Your task to perform on an android device: Clear the cart on bestbuy.com. Search for lenovo thinkpad on bestbuy.com, select the first entry, and add it to the cart. Image 0: 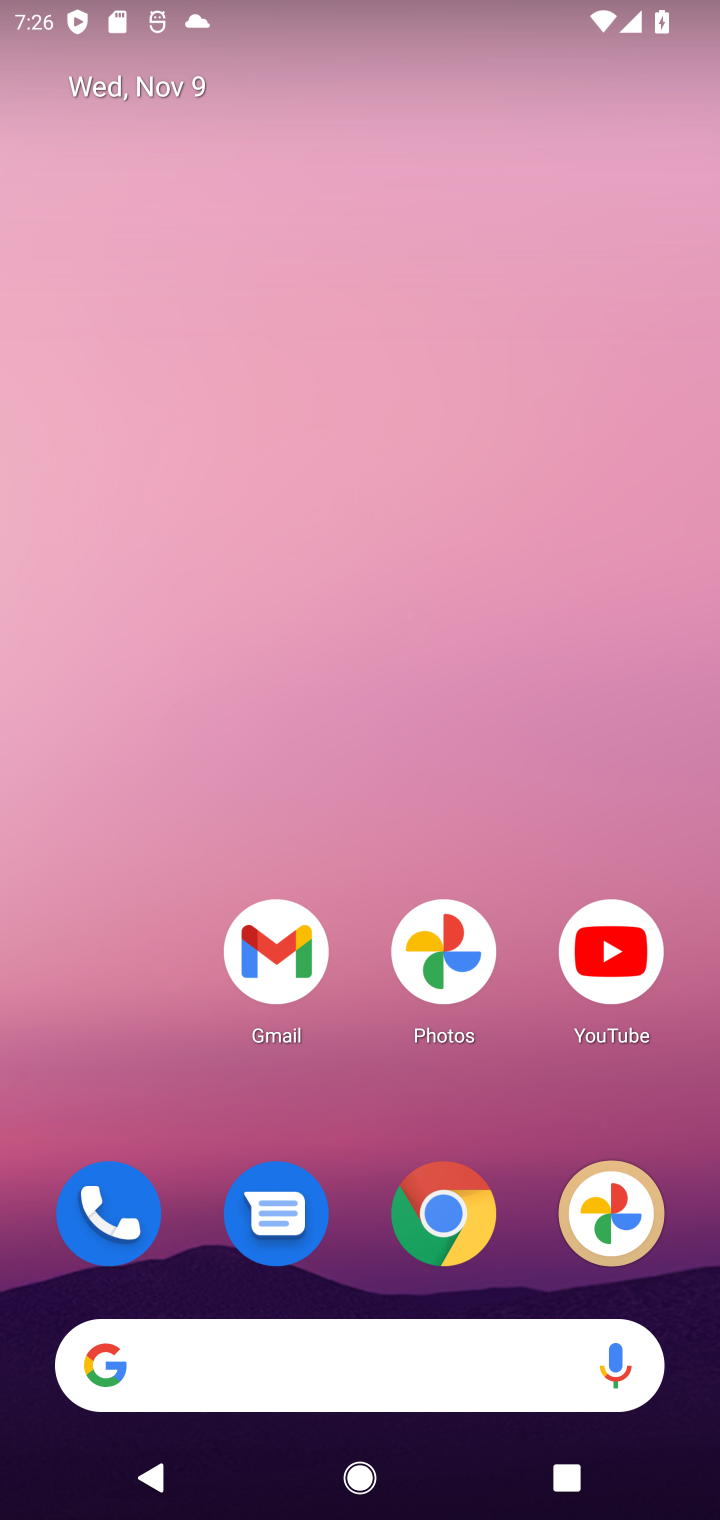
Step 0: click (473, 1206)
Your task to perform on an android device: Clear the cart on bestbuy.com. Search for lenovo thinkpad on bestbuy.com, select the first entry, and add it to the cart. Image 1: 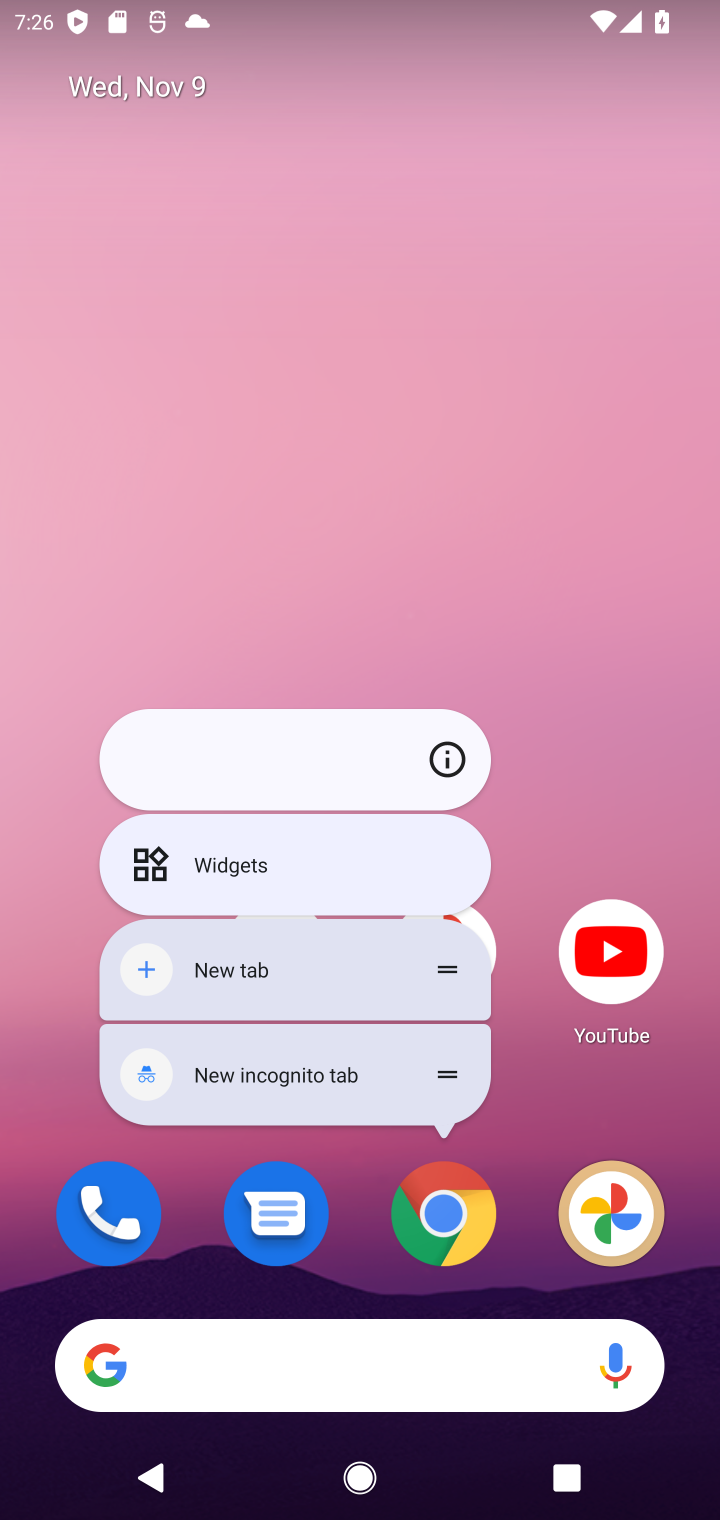
Step 1: click (443, 1198)
Your task to perform on an android device: Clear the cart on bestbuy.com. Search for lenovo thinkpad on bestbuy.com, select the first entry, and add it to the cart. Image 2: 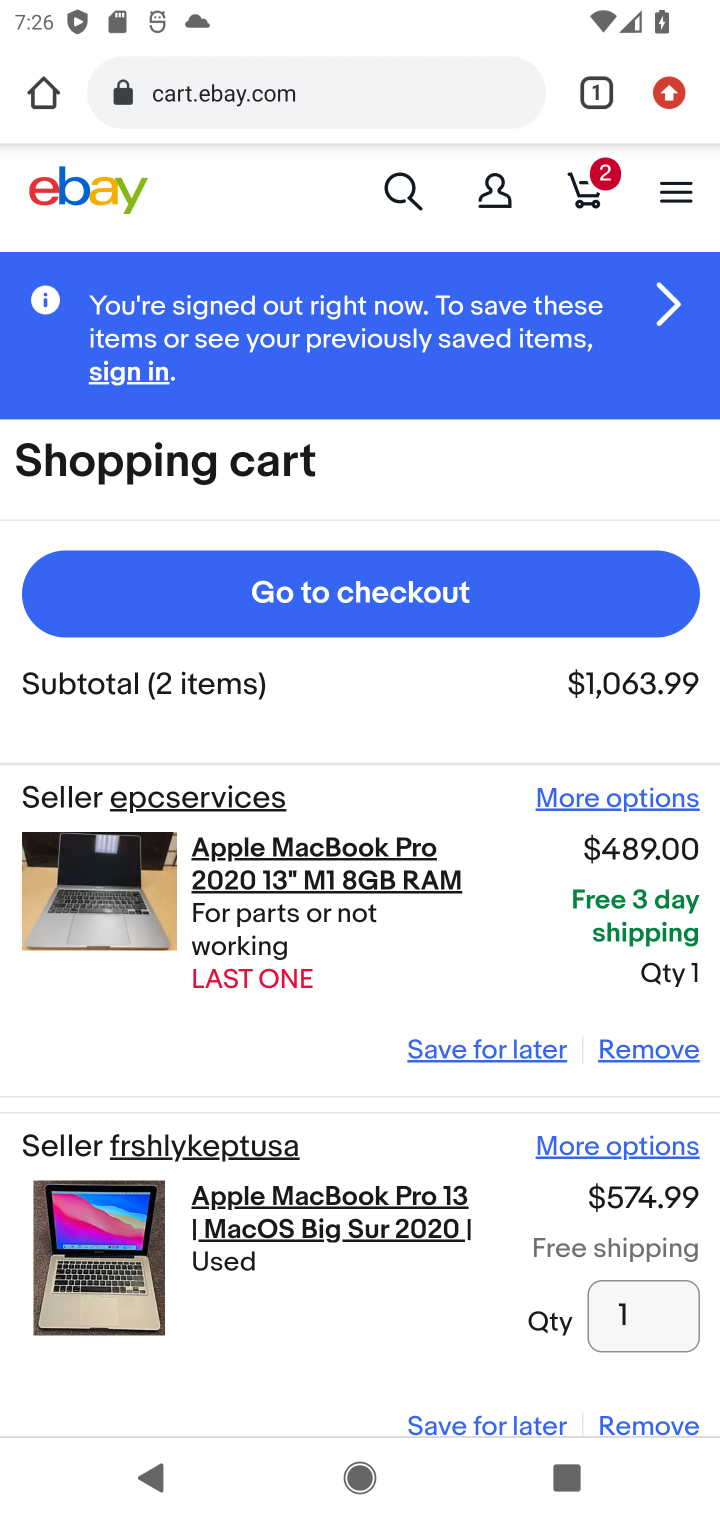
Step 2: click (215, 92)
Your task to perform on an android device: Clear the cart on bestbuy.com. Search for lenovo thinkpad on bestbuy.com, select the first entry, and add it to the cart. Image 3: 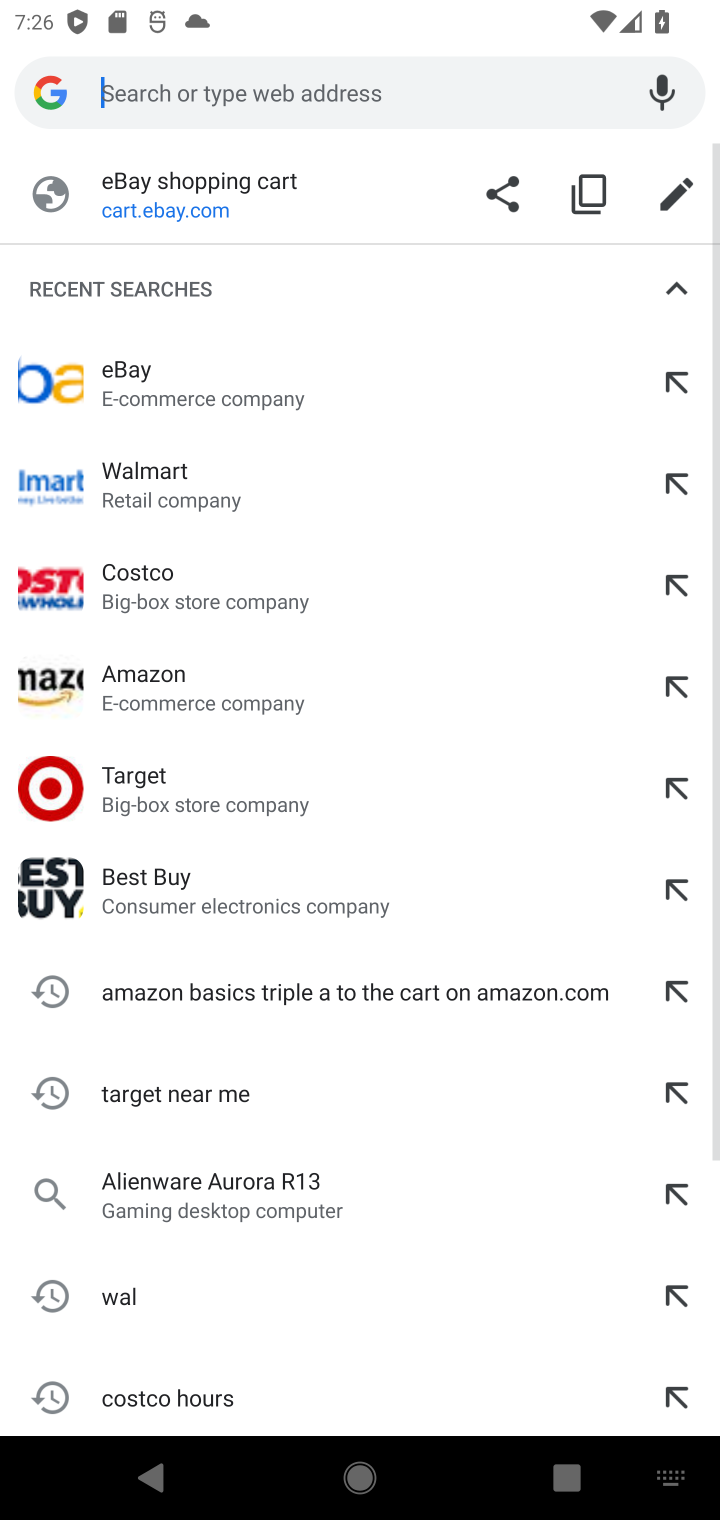
Step 3: click (112, 868)
Your task to perform on an android device: Clear the cart on bestbuy.com. Search for lenovo thinkpad on bestbuy.com, select the first entry, and add it to the cart. Image 4: 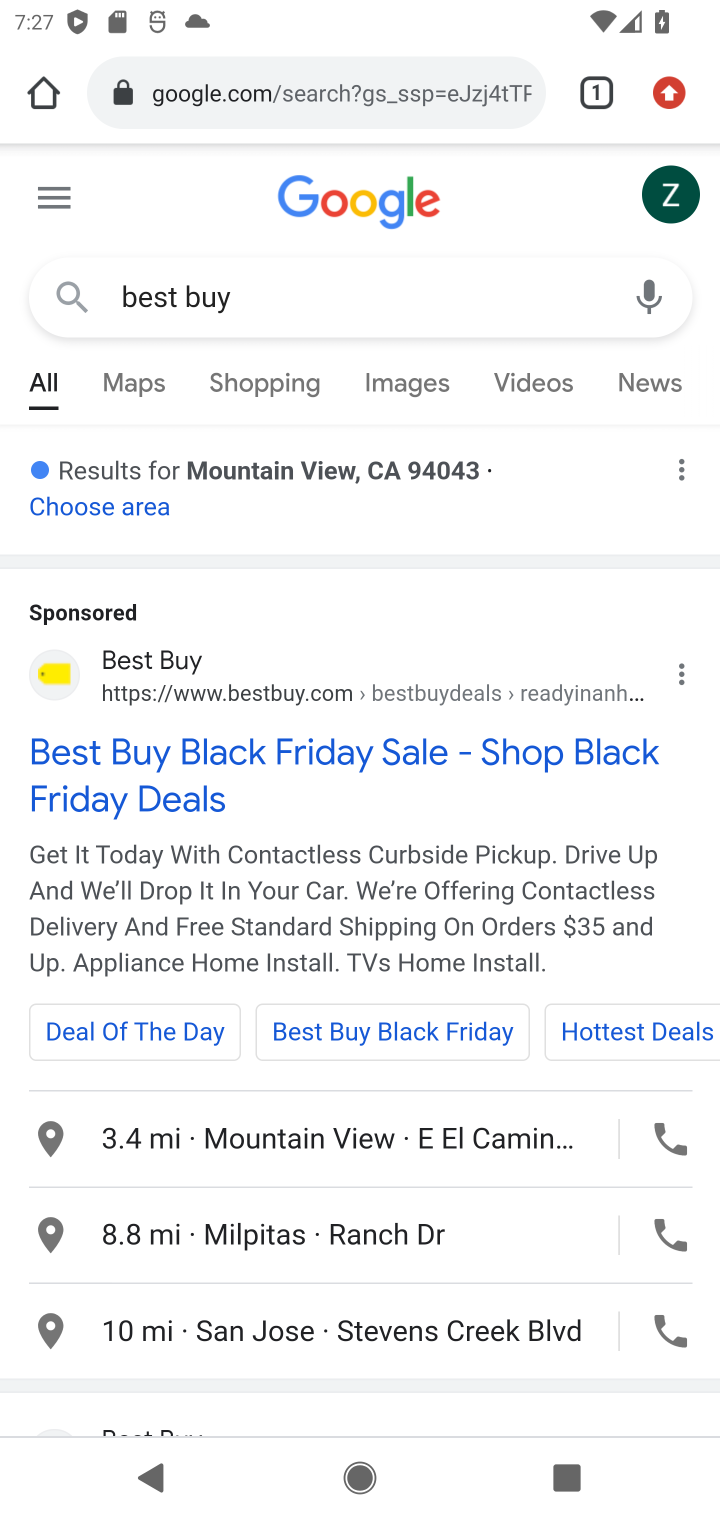
Step 4: drag from (149, 1320) to (297, 370)
Your task to perform on an android device: Clear the cart on bestbuy.com. Search for lenovo thinkpad on bestbuy.com, select the first entry, and add it to the cart. Image 5: 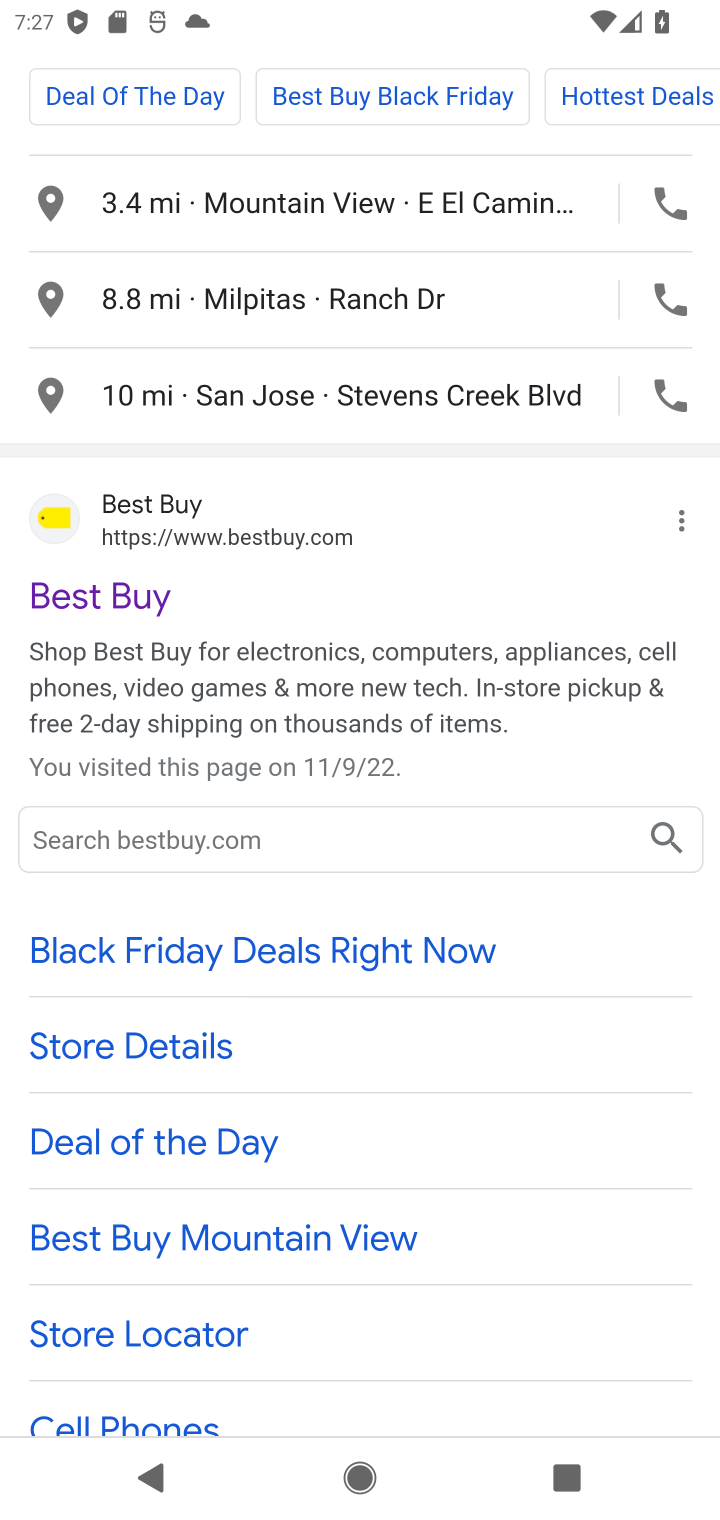
Step 5: click (118, 586)
Your task to perform on an android device: Clear the cart on bestbuy.com. Search for lenovo thinkpad on bestbuy.com, select the first entry, and add it to the cart. Image 6: 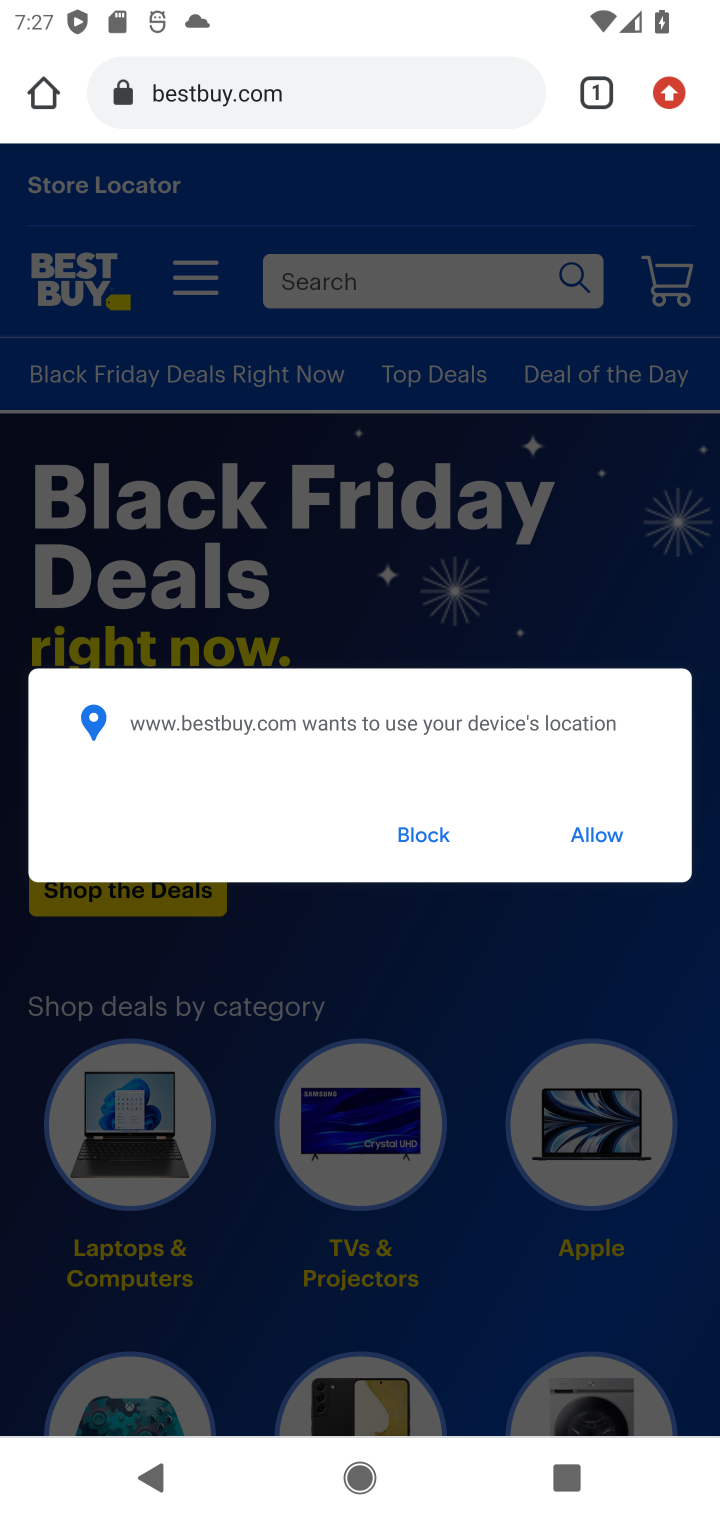
Step 6: click (610, 830)
Your task to perform on an android device: Clear the cart on bestbuy.com. Search for lenovo thinkpad on bestbuy.com, select the first entry, and add it to the cart. Image 7: 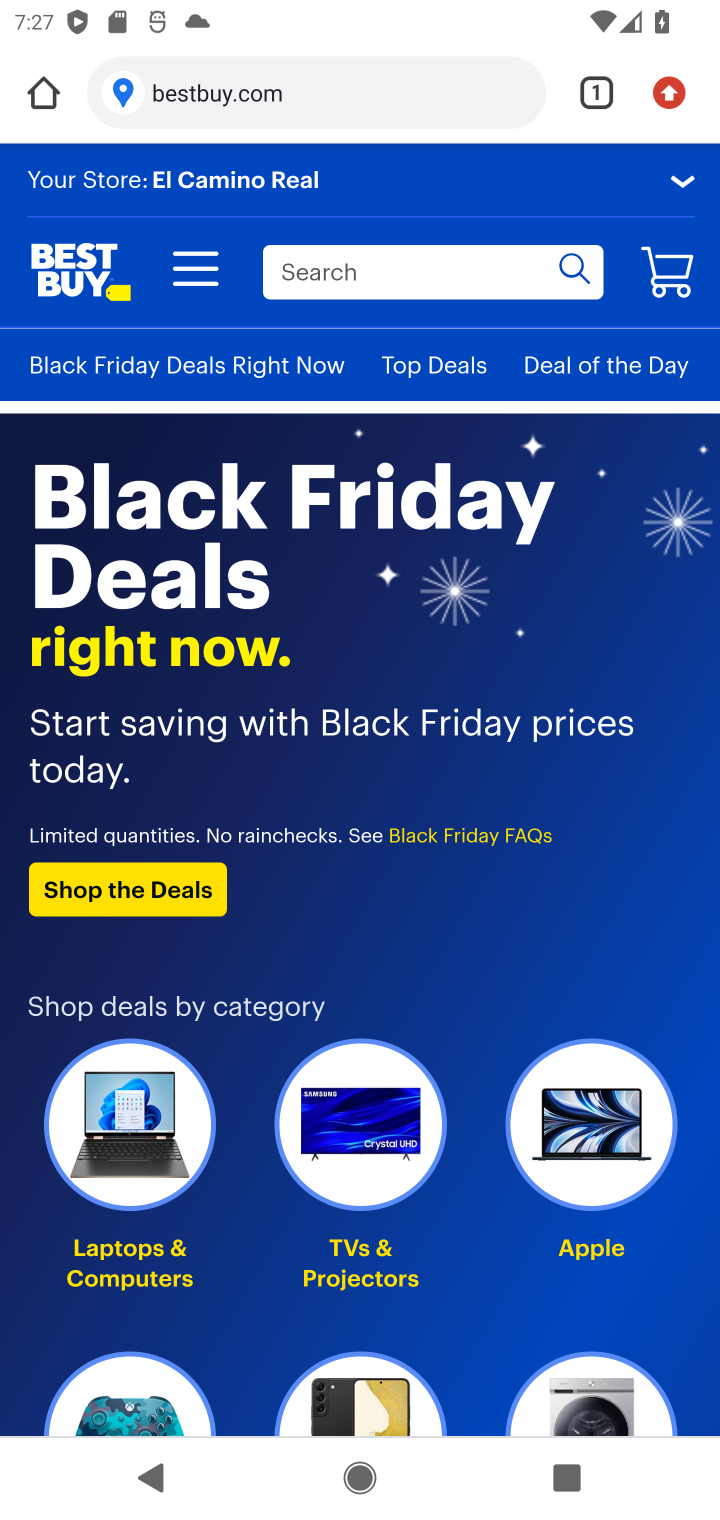
Step 7: click (367, 273)
Your task to perform on an android device: Clear the cart on bestbuy.com. Search for lenovo thinkpad on bestbuy.com, select the first entry, and add it to the cart. Image 8: 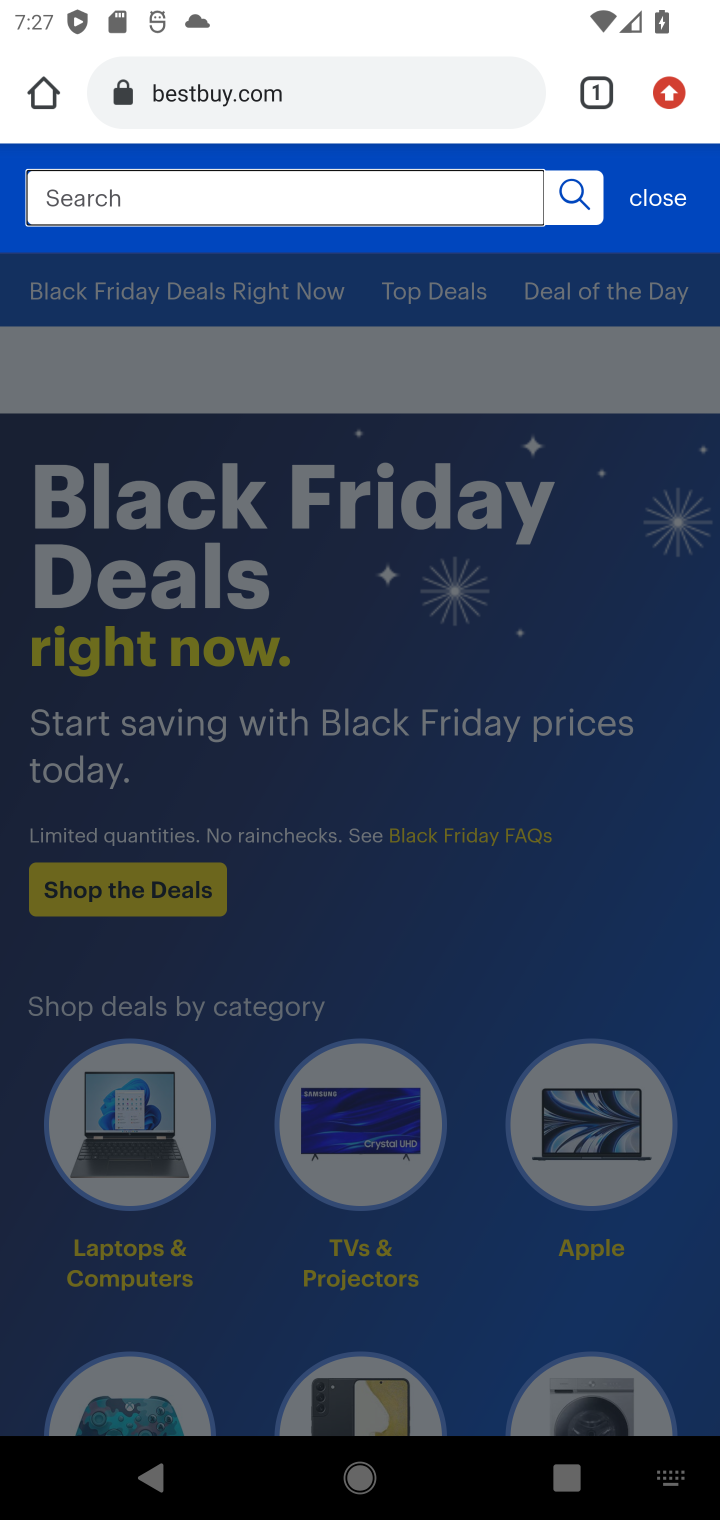
Step 8: type "lenovo thinkpad"
Your task to perform on an android device: Clear the cart on bestbuy.com. Search for lenovo thinkpad on bestbuy.com, select the first entry, and add it to the cart. Image 9: 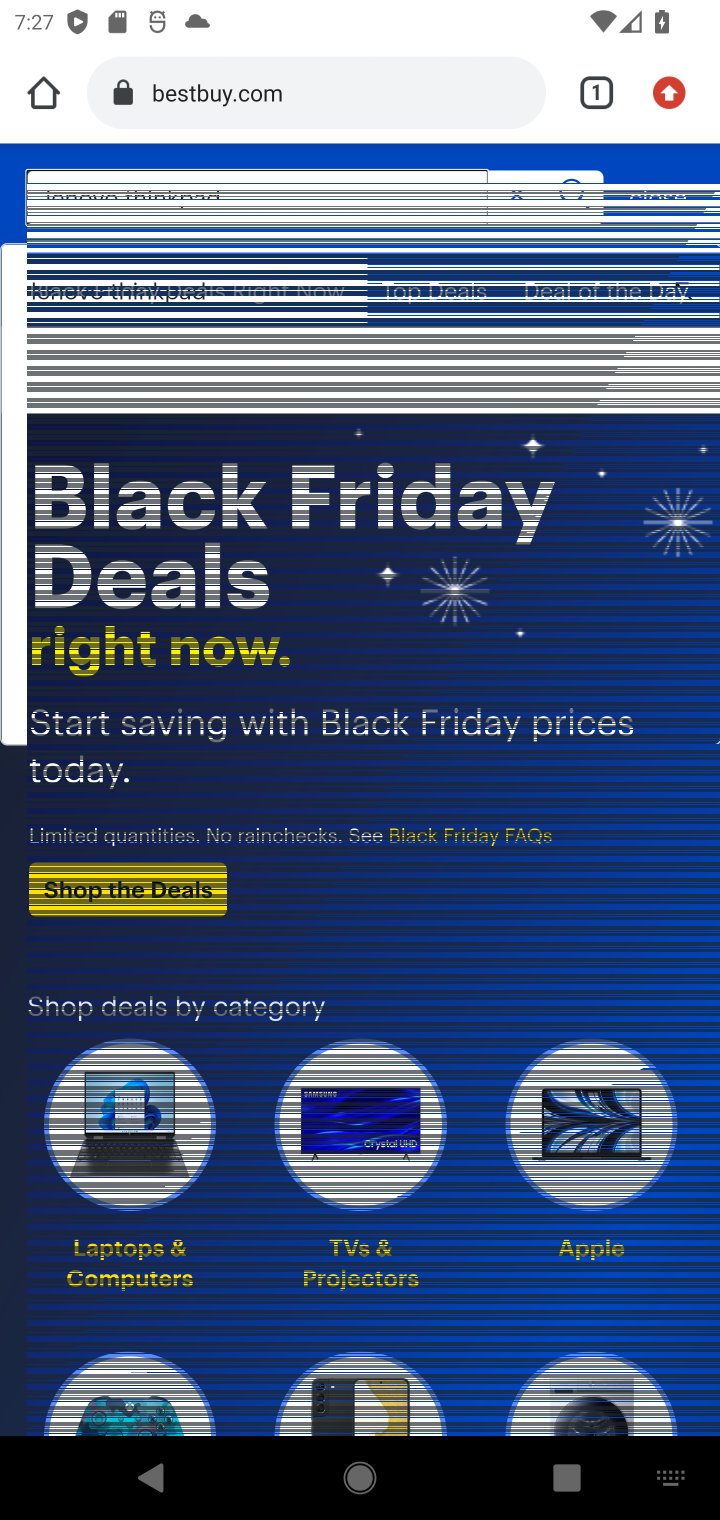
Step 9: click (161, 282)
Your task to perform on an android device: Clear the cart on bestbuy.com. Search for lenovo thinkpad on bestbuy.com, select the first entry, and add it to the cart. Image 10: 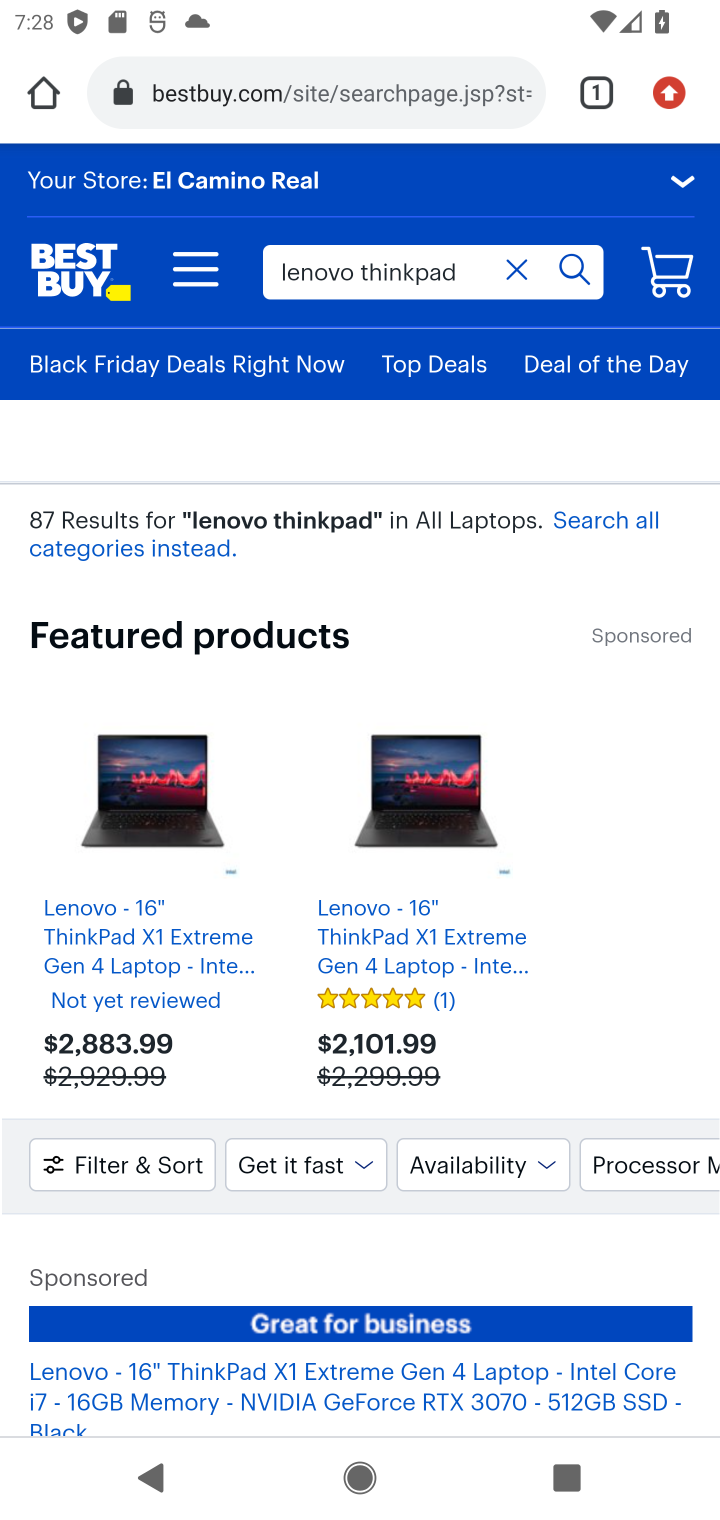
Step 10: click (69, 933)
Your task to perform on an android device: Clear the cart on bestbuy.com. Search for lenovo thinkpad on bestbuy.com, select the first entry, and add it to the cart. Image 11: 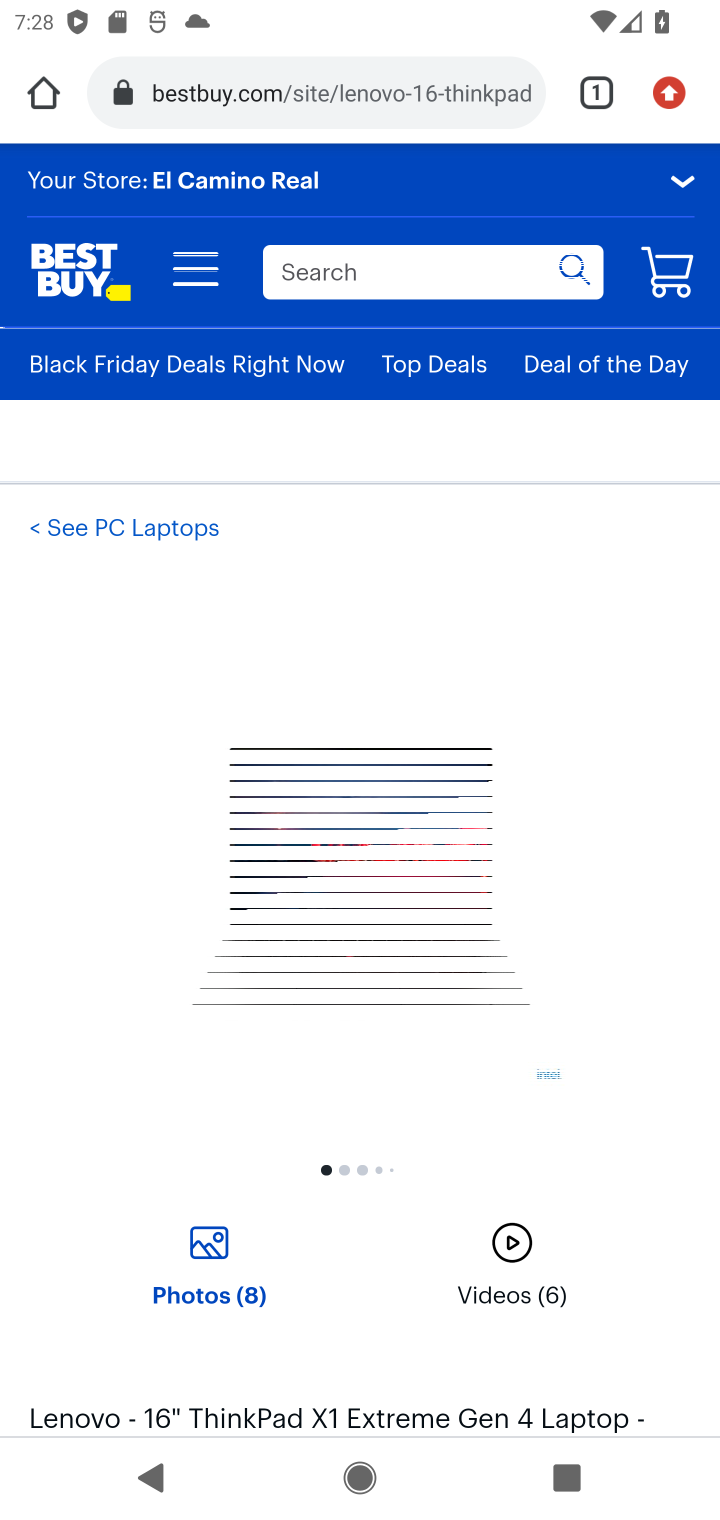
Step 11: drag from (298, 1114) to (319, 504)
Your task to perform on an android device: Clear the cart on bestbuy.com. Search for lenovo thinkpad on bestbuy.com, select the first entry, and add it to the cart. Image 12: 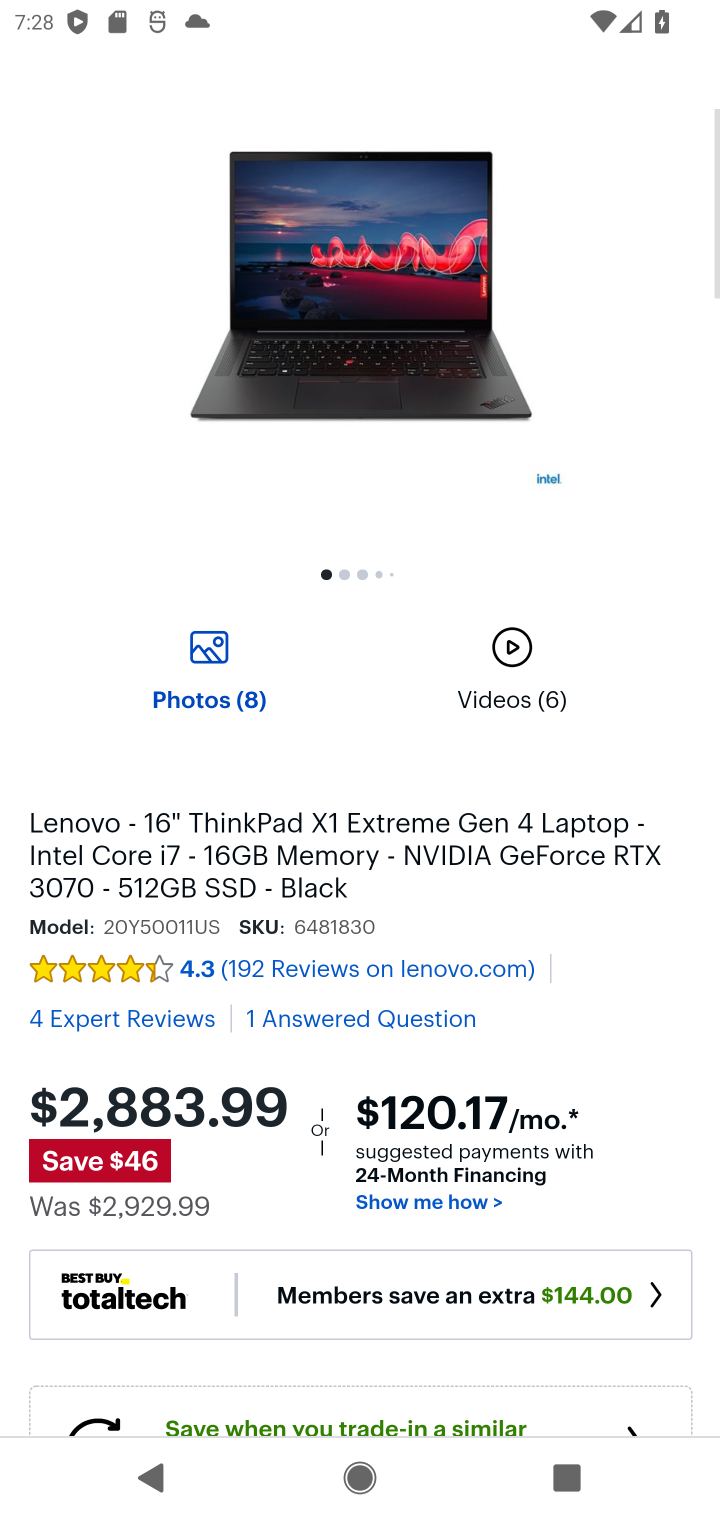
Step 12: drag from (281, 1216) to (315, 527)
Your task to perform on an android device: Clear the cart on bestbuy.com. Search for lenovo thinkpad on bestbuy.com, select the first entry, and add it to the cart. Image 13: 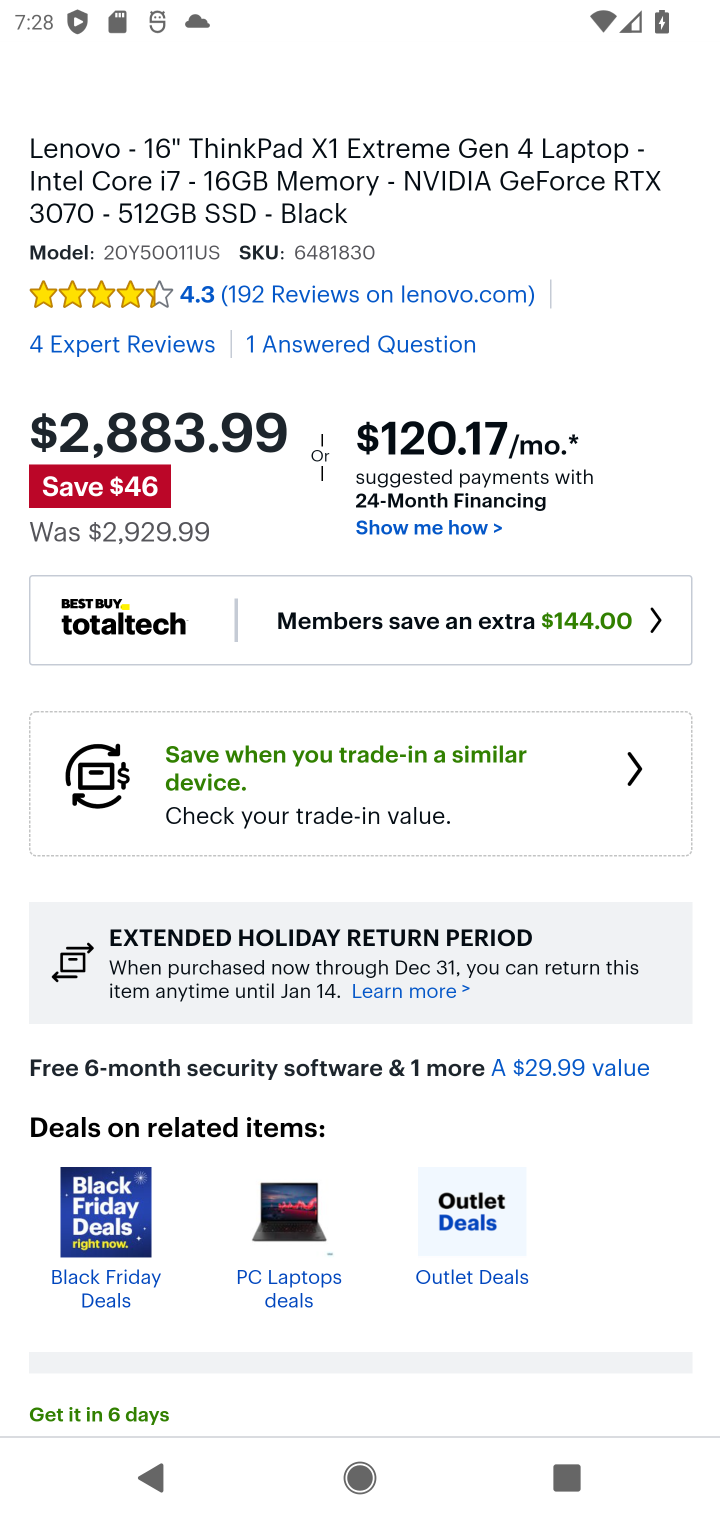
Step 13: drag from (346, 990) to (308, 432)
Your task to perform on an android device: Clear the cart on bestbuy.com. Search for lenovo thinkpad on bestbuy.com, select the first entry, and add it to the cart. Image 14: 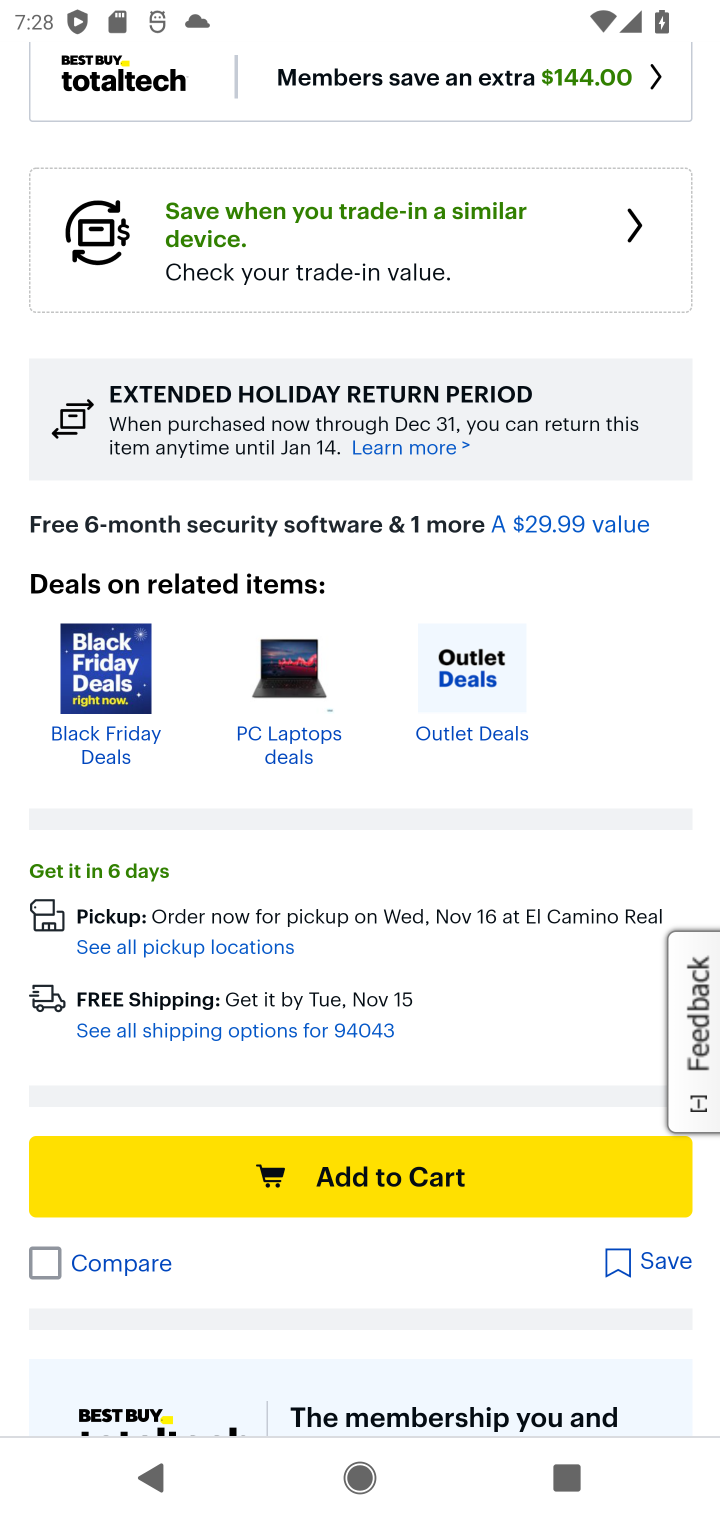
Step 14: click (369, 1168)
Your task to perform on an android device: Clear the cart on bestbuy.com. Search for lenovo thinkpad on bestbuy.com, select the first entry, and add it to the cart. Image 15: 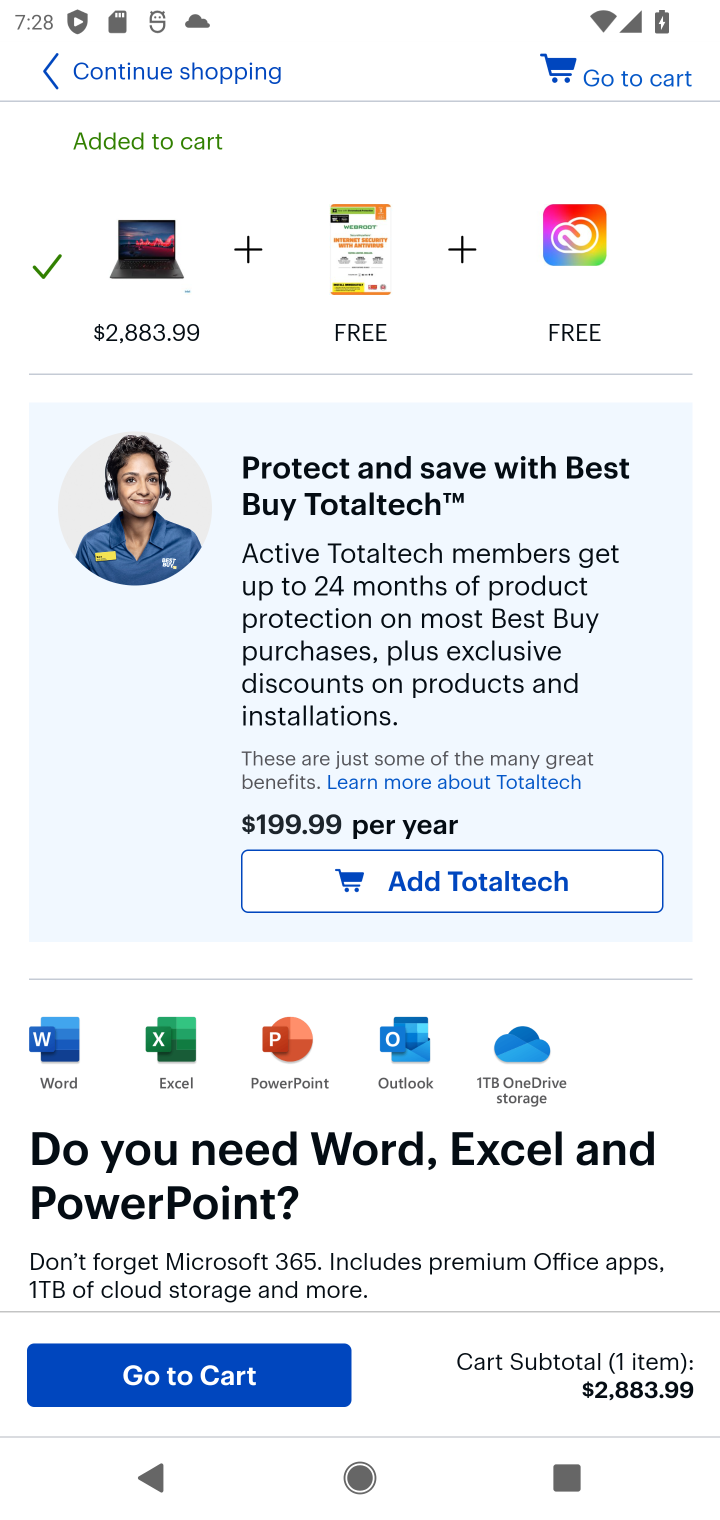
Step 15: click (160, 1390)
Your task to perform on an android device: Clear the cart on bestbuy.com. Search for lenovo thinkpad on bestbuy.com, select the first entry, and add it to the cart. Image 16: 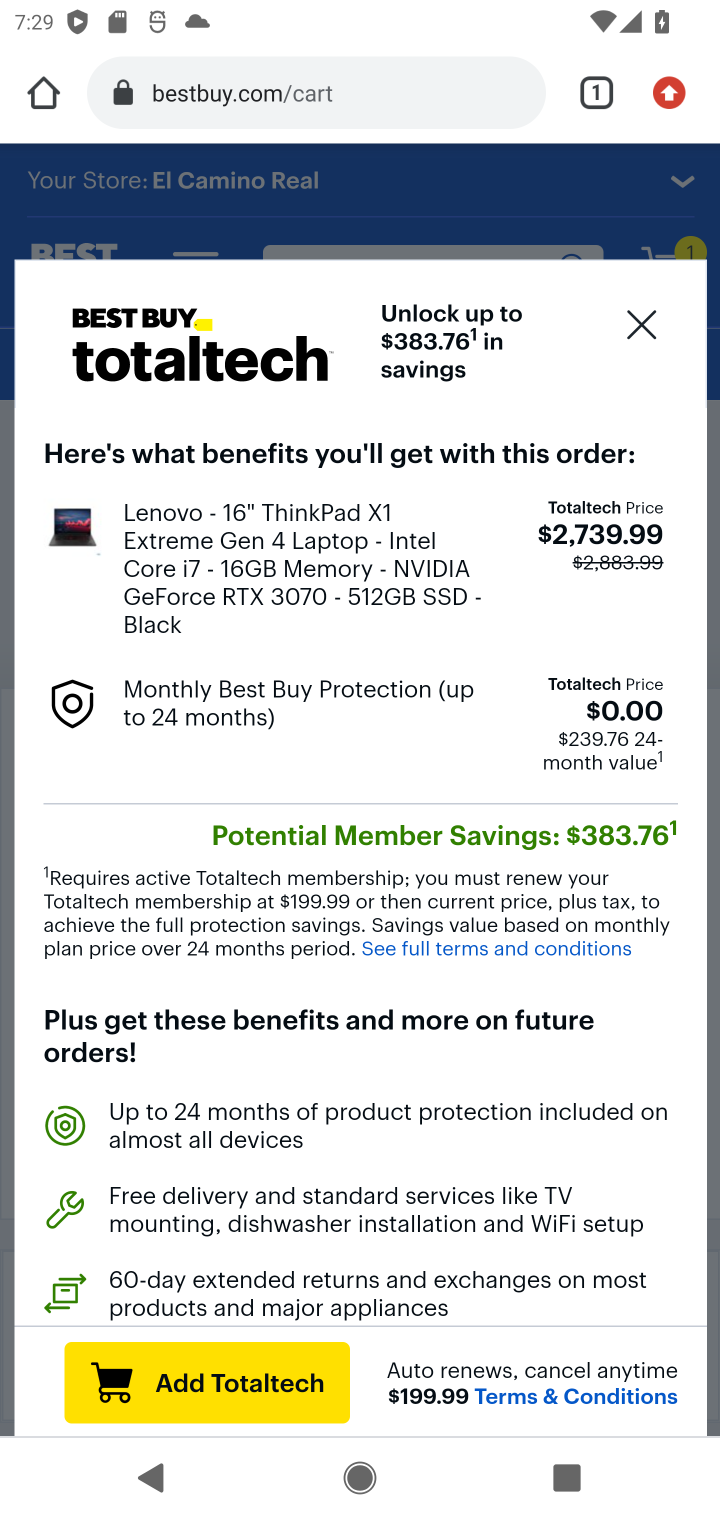
Step 16: click (636, 317)
Your task to perform on an android device: Clear the cart on bestbuy.com. Search for lenovo thinkpad on bestbuy.com, select the first entry, and add it to the cart. Image 17: 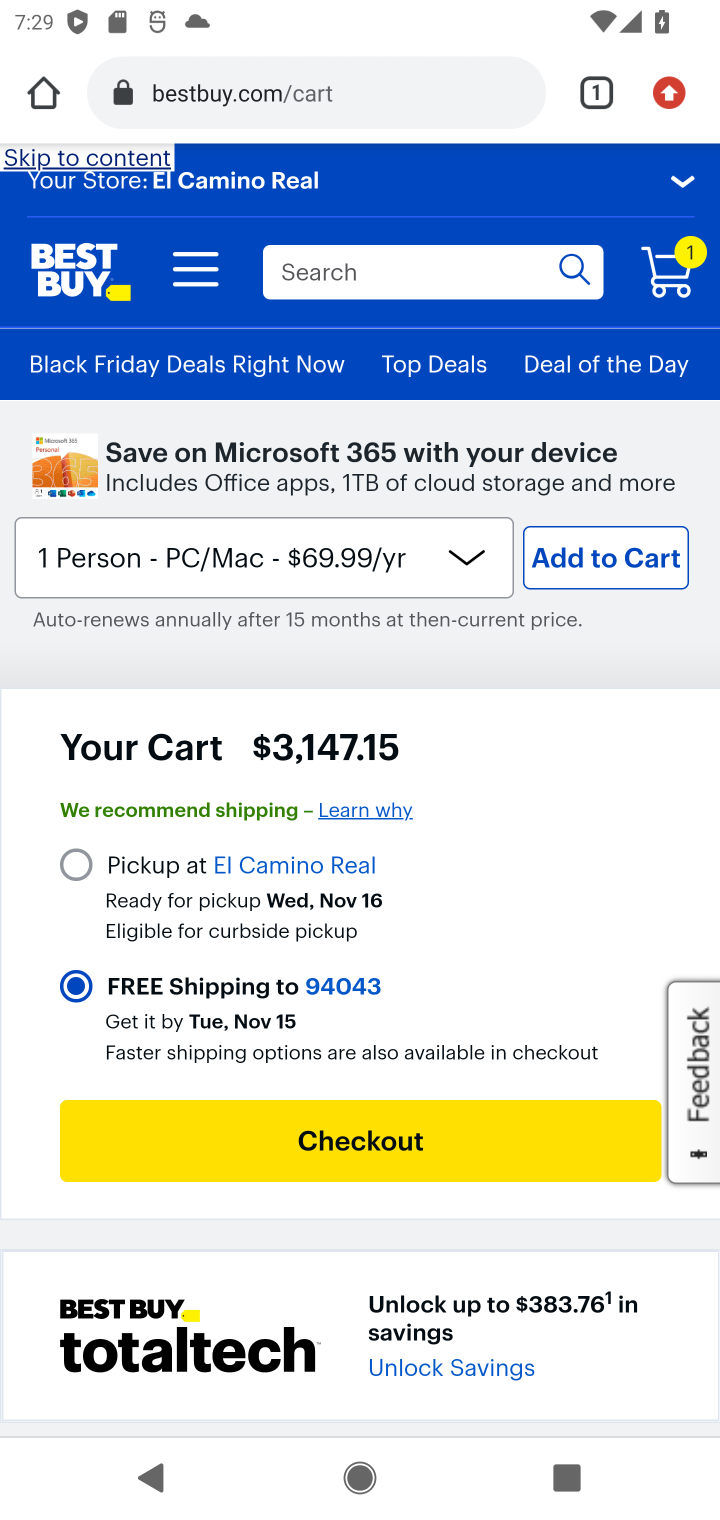
Step 17: task complete